Your task to perform on an android device: Go to notification settings Image 0: 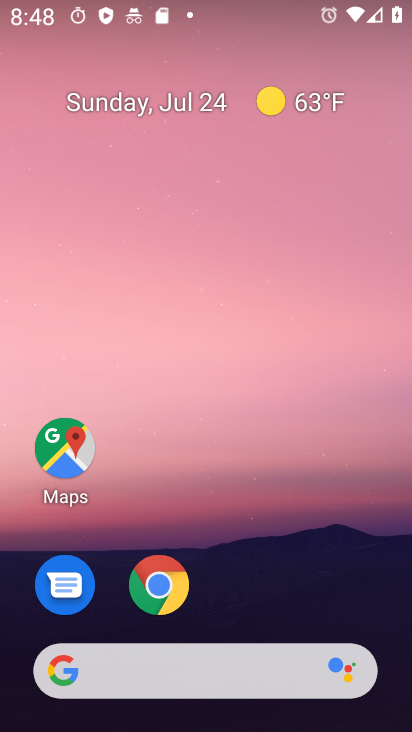
Step 0: drag from (205, 590) to (168, 270)
Your task to perform on an android device: Go to notification settings Image 1: 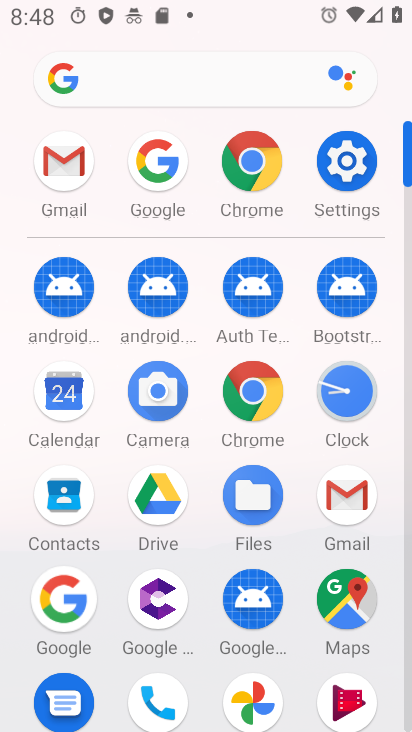
Step 1: click (335, 179)
Your task to perform on an android device: Go to notification settings Image 2: 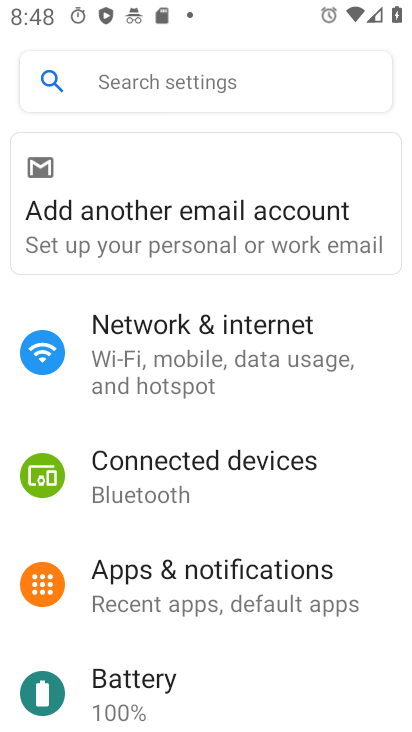
Step 2: click (229, 571)
Your task to perform on an android device: Go to notification settings Image 3: 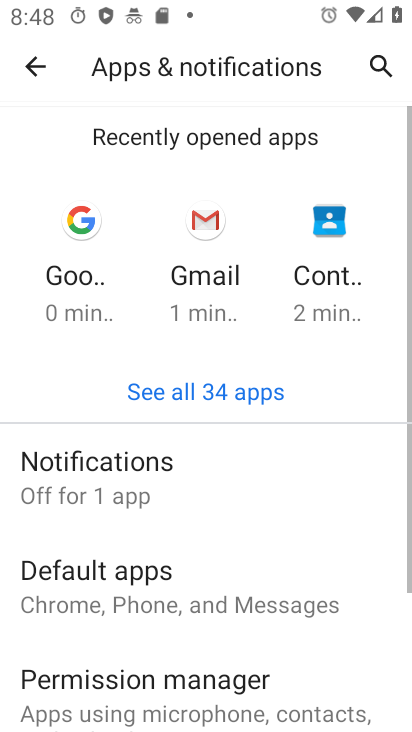
Step 3: click (176, 487)
Your task to perform on an android device: Go to notification settings Image 4: 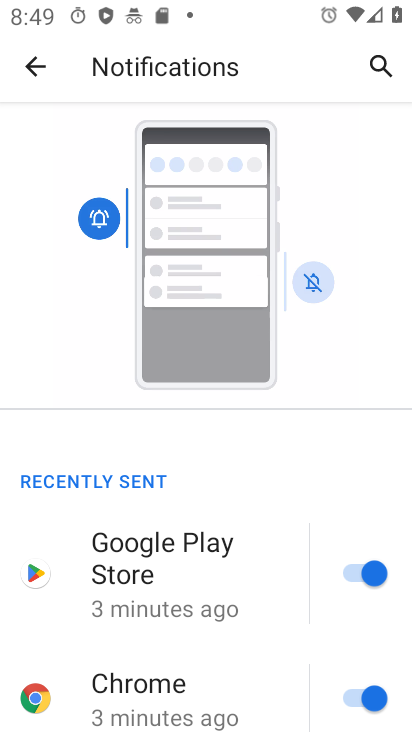
Step 4: task complete